Your task to perform on an android device: Go to wifi settings Image 0: 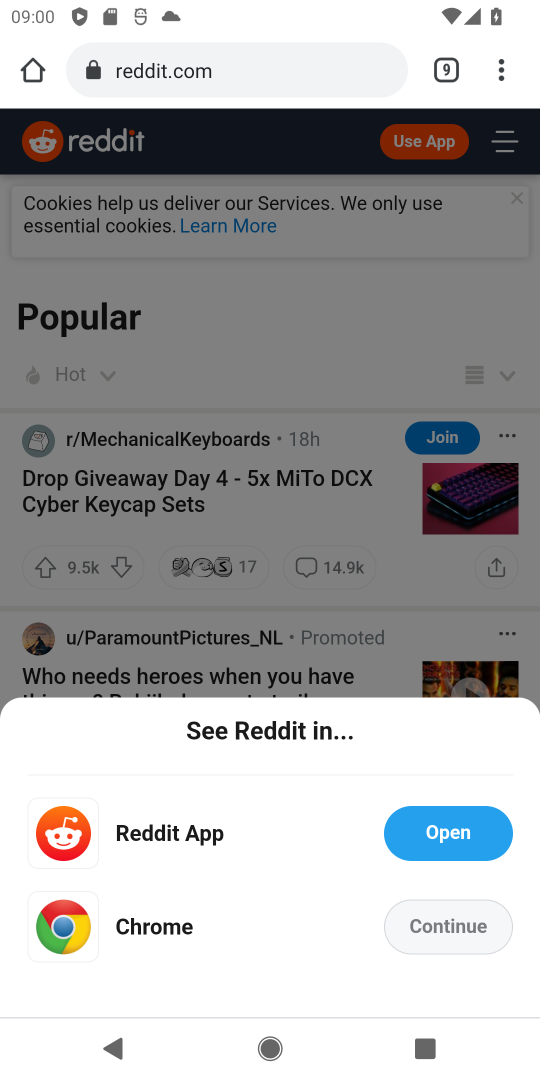
Step 0: press home button
Your task to perform on an android device: Go to wifi settings Image 1: 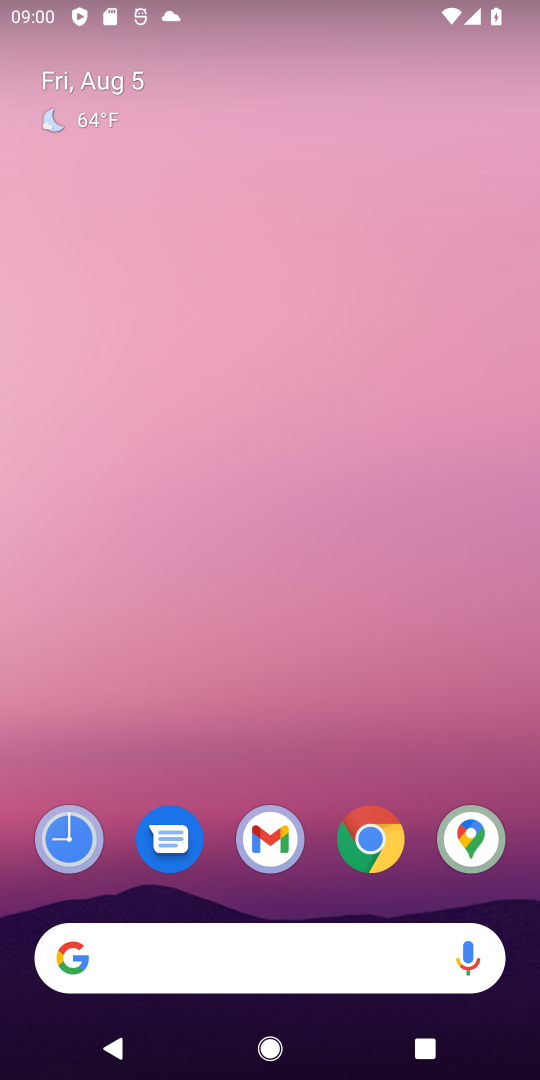
Step 1: drag from (323, 804) to (316, 171)
Your task to perform on an android device: Go to wifi settings Image 2: 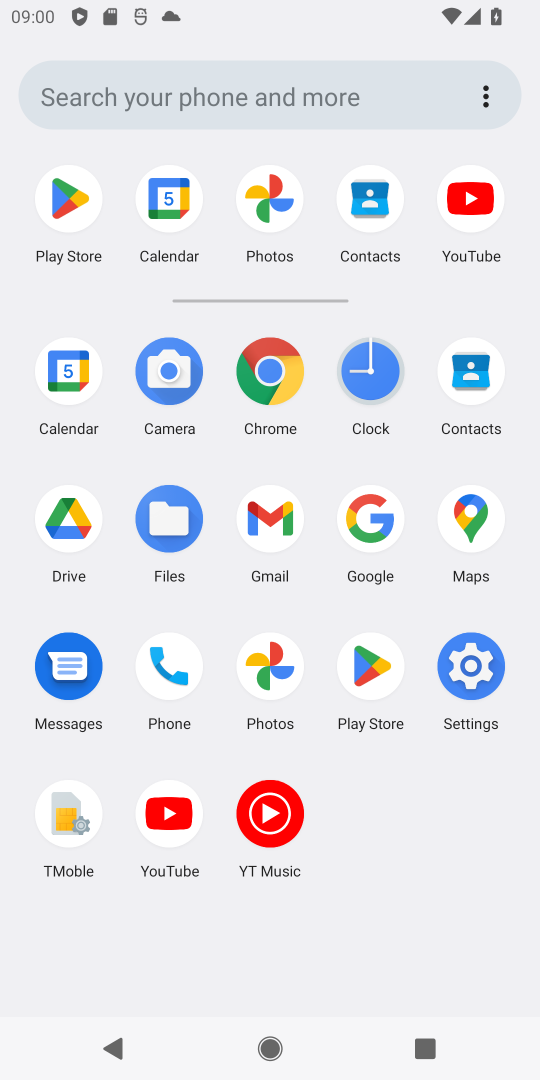
Step 2: click (486, 668)
Your task to perform on an android device: Go to wifi settings Image 3: 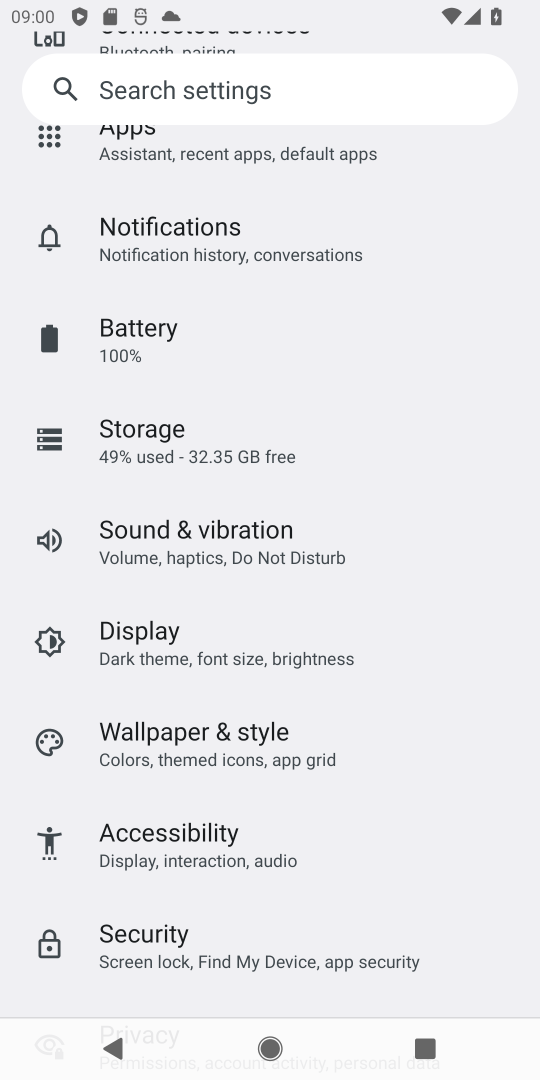
Step 3: drag from (174, 208) to (217, 759)
Your task to perform on an android device: Go to wifi settings Image 4: 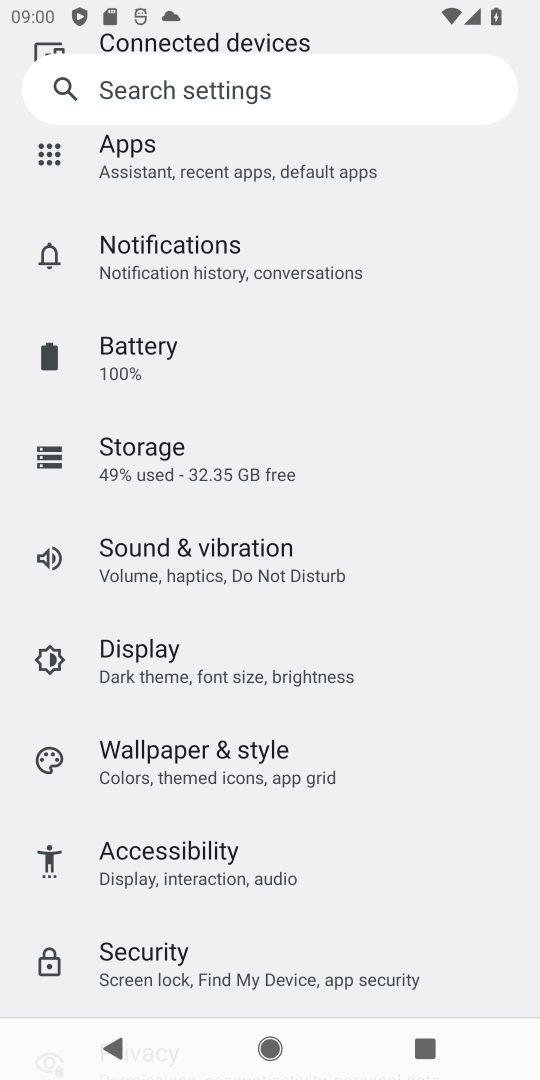
Step 4: drag from (248, 273) to (272, 793)
Your task to perform on an android device: Go to wifi settings Image 5: 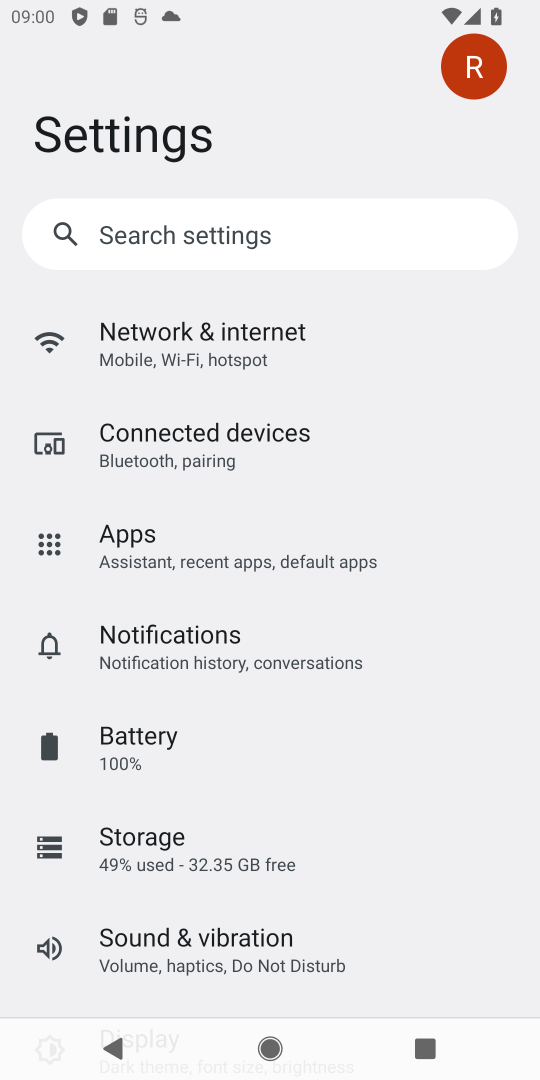
Step 5: click (158, 351)
Your task to perform on an android device: Go to wifi settings Image 6: 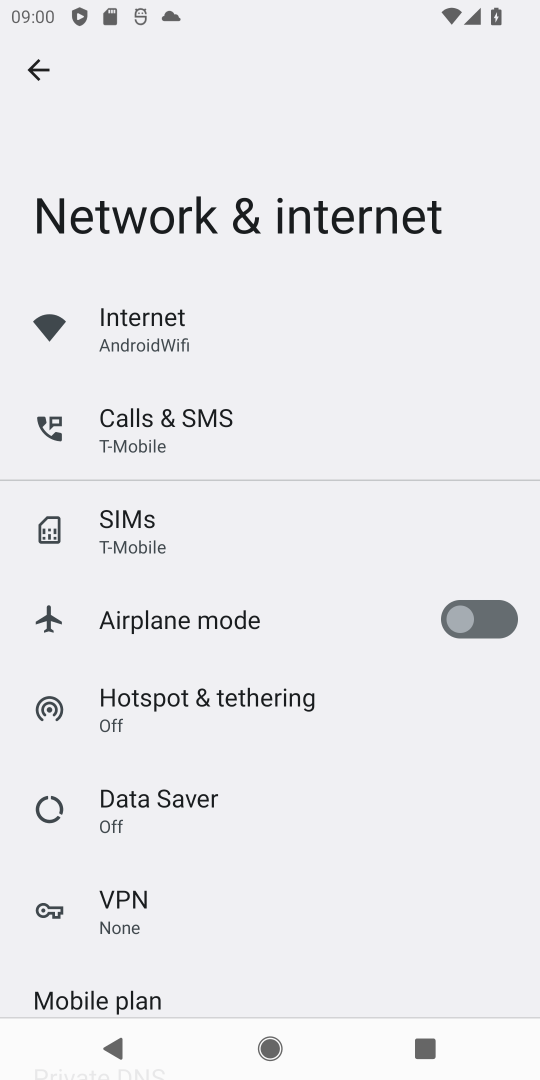
Step 6: click (139, 329)
Your task to perform on an android device: Go to wifi settings Image 7: 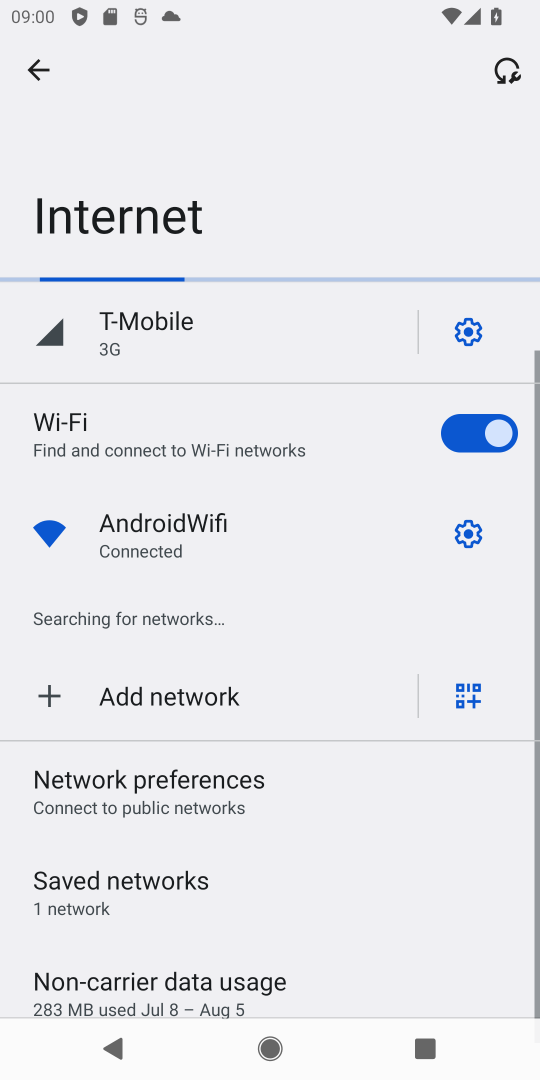
Step 7: task complete